Your task to perform on an android device: remove spam from my inbox in the gmail app Image 0: 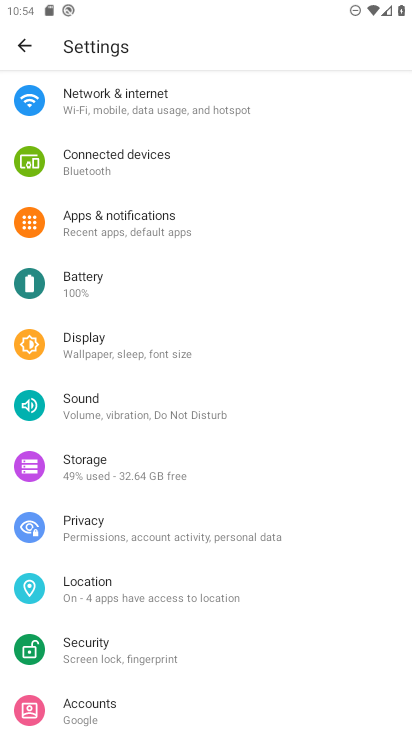
Step 0: press home button
Your task to perform on an android device: remove spam from my inbox in the gmail app Image 1: 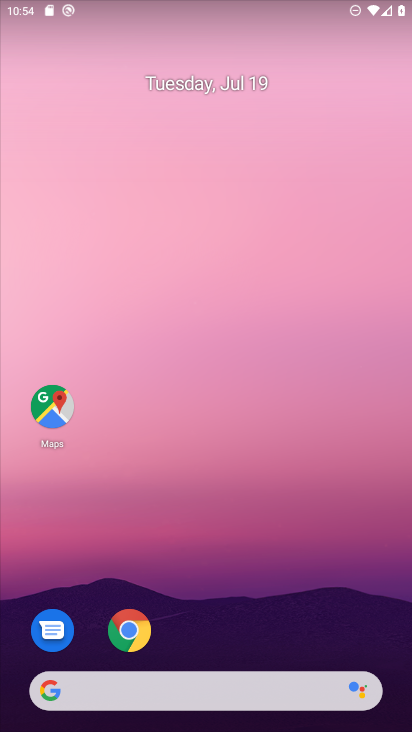
Step 1: drag from (216, 538) to (216, 153)
Your task to perform on an android device: remove spam from my inbox in the gmail app Image 2: 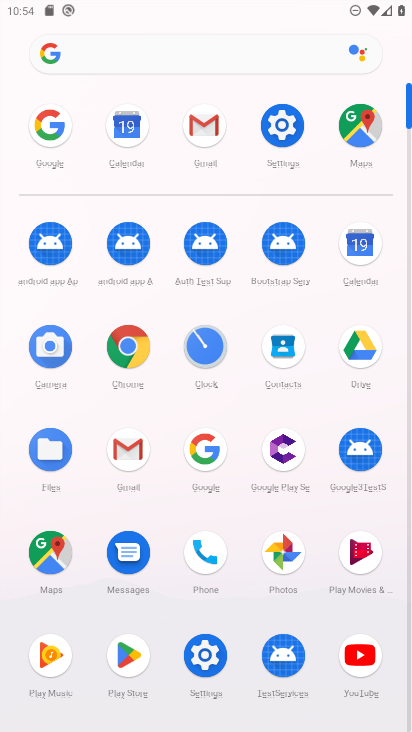
Step 2: click (137, 464)
Your task to perform on an android device: remove spam from my inbox in the gmail app Image 3: 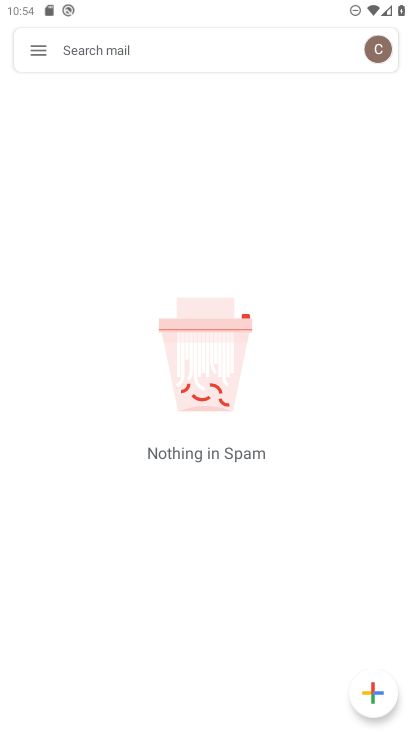
Step 3: click (37, 52)
Your task to perform on an android device: remove spam from my inbox in the gmail app Image 4: 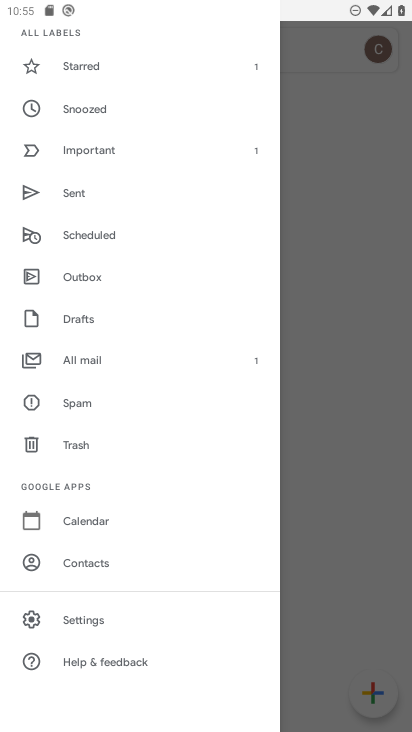
Step 4: click (103, 406)
Your task to perform on an android device: remove spam from my inbox in the gmail app Image 5: 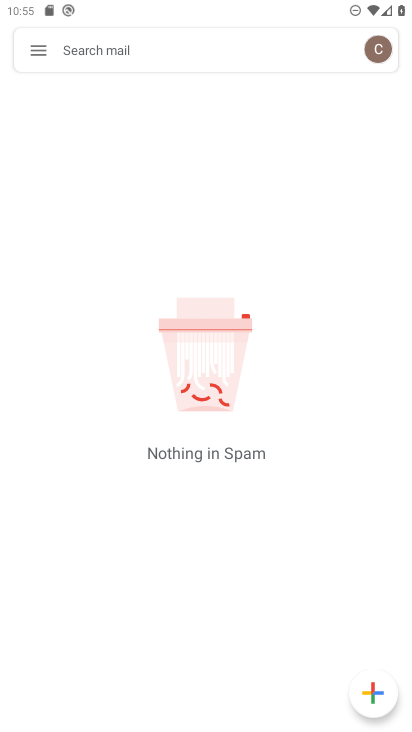
Step 5: task complete